Your task to perform on an android device: Go to internet settings Image 0: 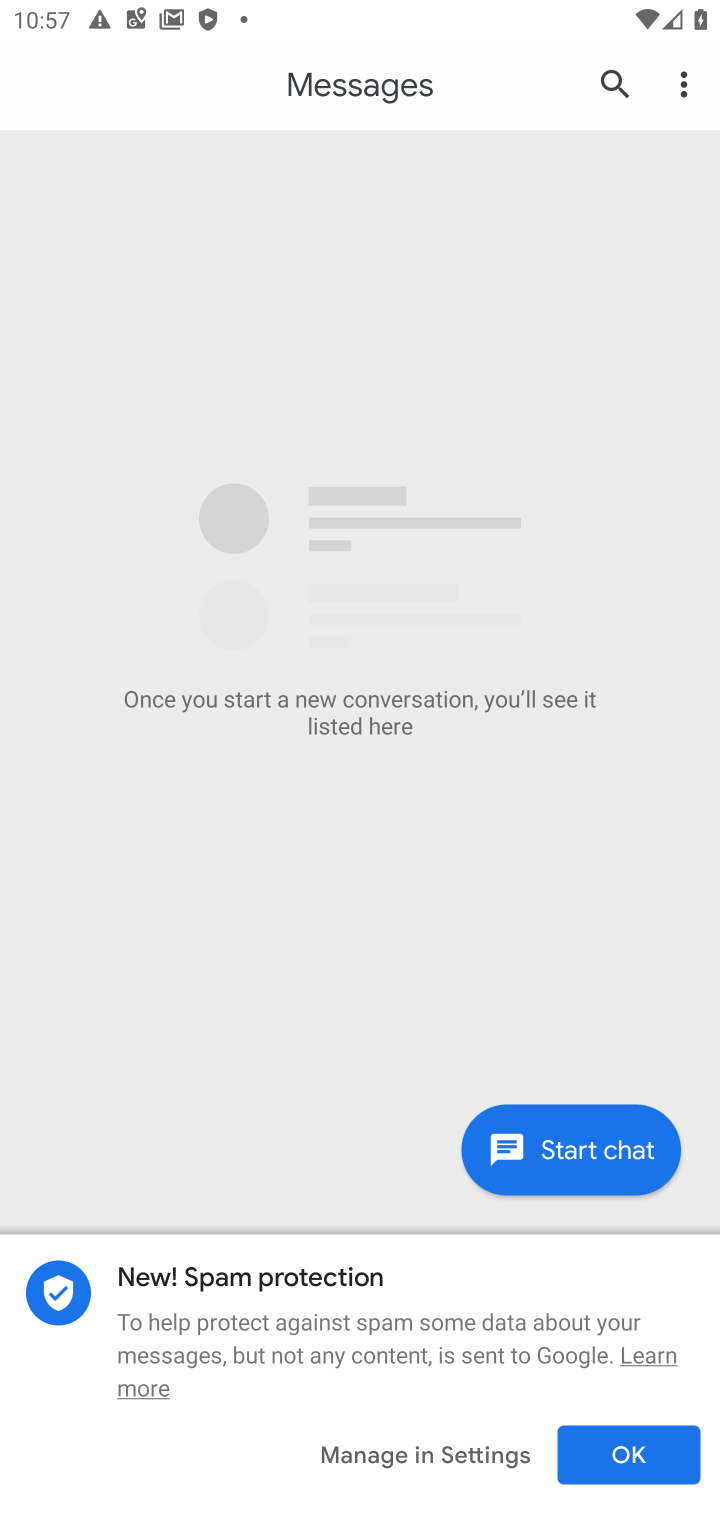
Step 0: press home button
Your task to perform on an android device: Go to internet settings Image 1: 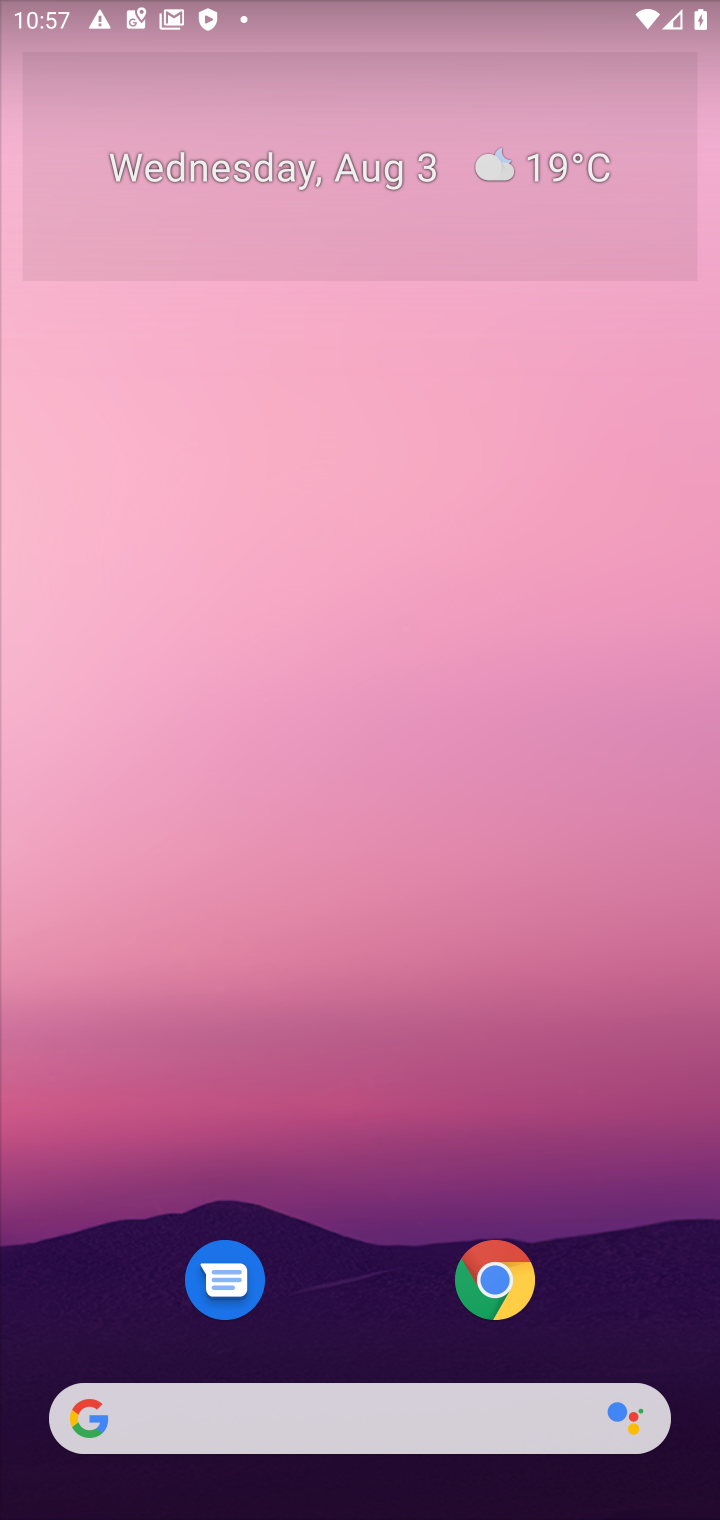
Step 1: drag from (426, 1101) to (628, 0)
Your task to perform on an android device: Go to internet settings Image 2: 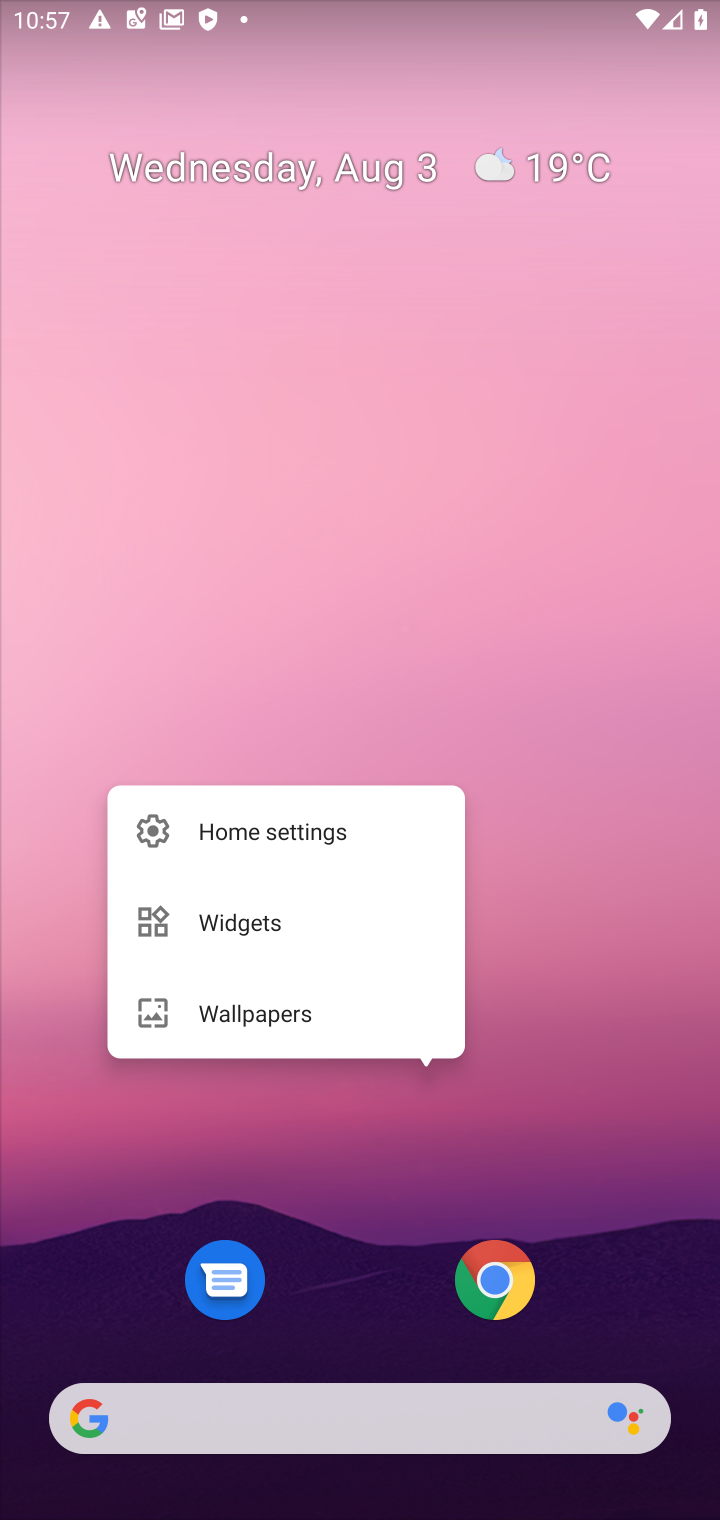
Step 2: click (396, 633)
Your task to perform on an android device: Go to internet settings Image 3: 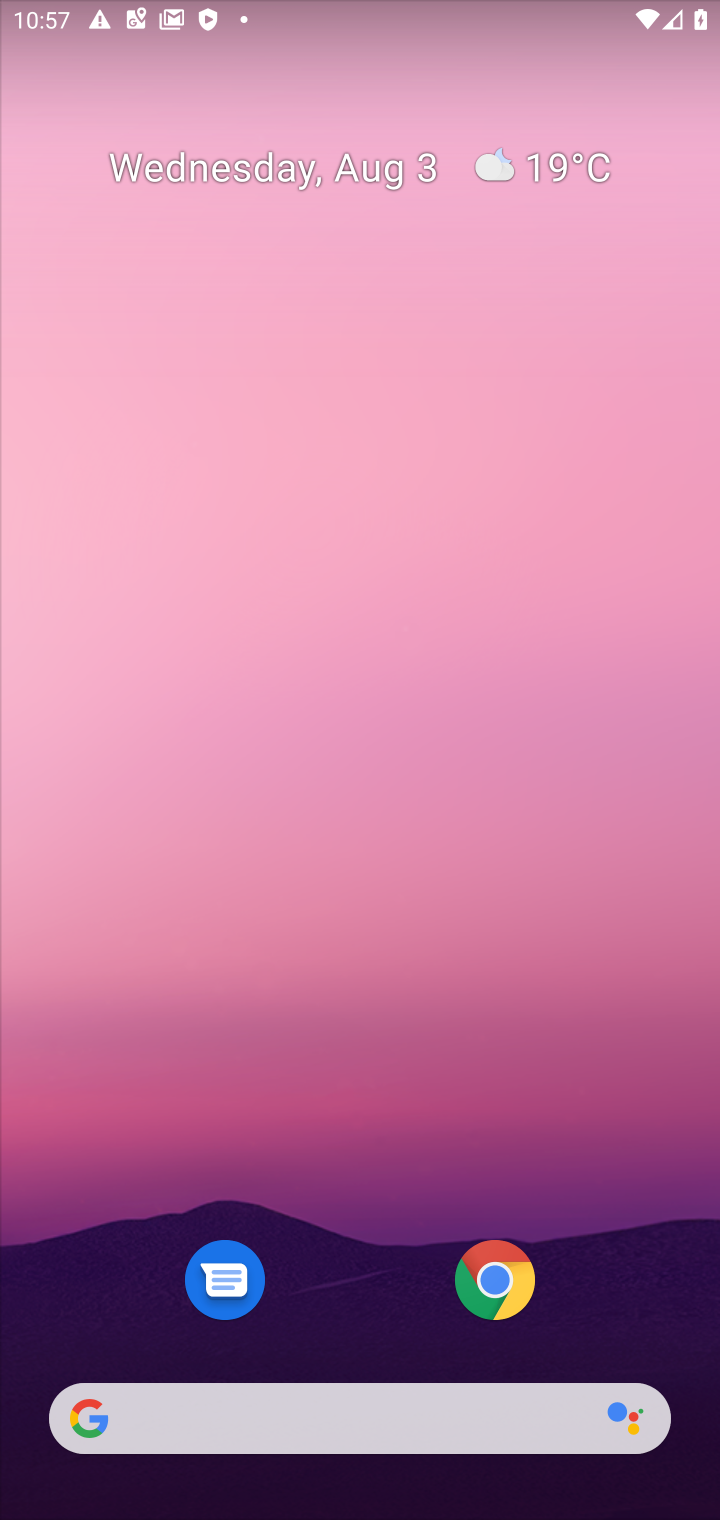
Step 3: drag from (360, 1120) to (260, 504)
Your task to perform on an android device: Go to internet settings Image 4: 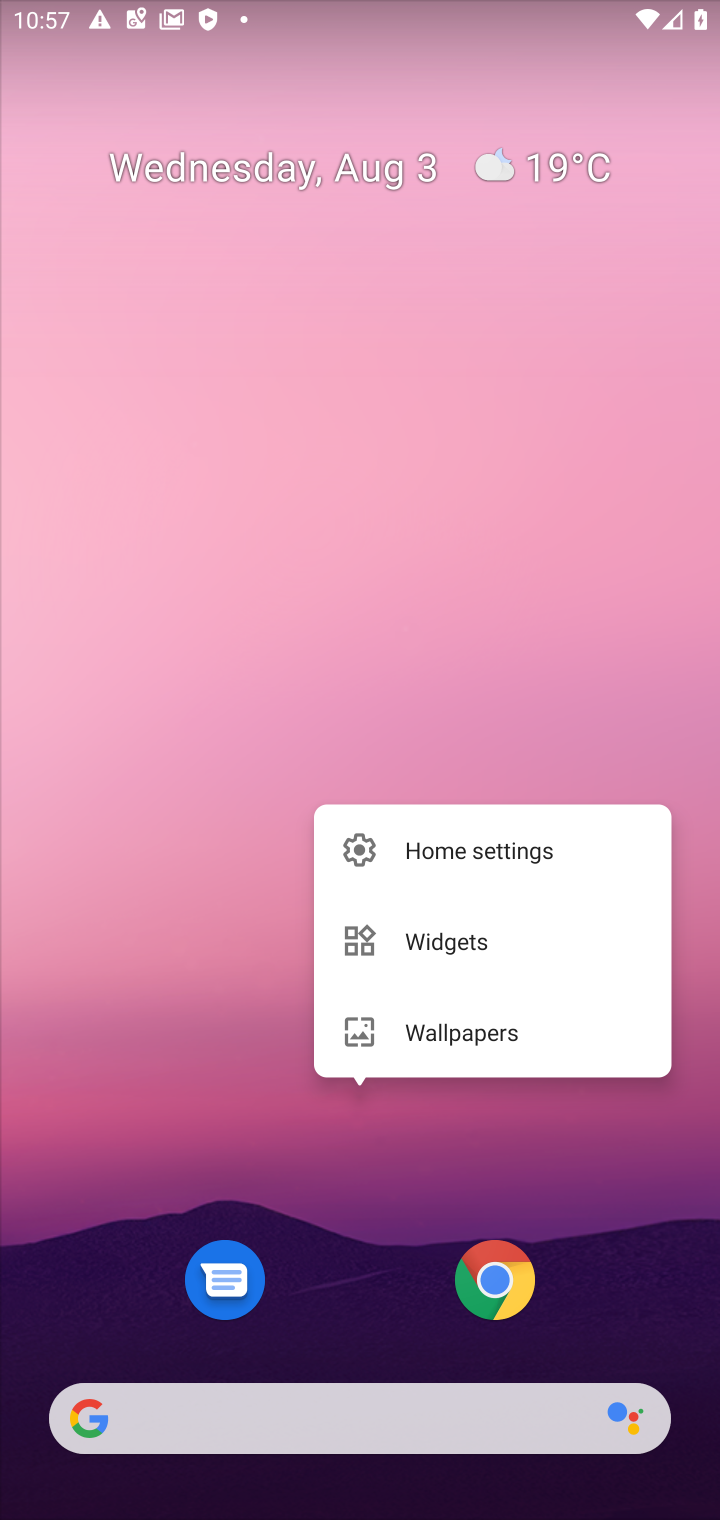
Step 4: click (263, 704)
Your task to perform on an android device: Go to internet settings Image 5: 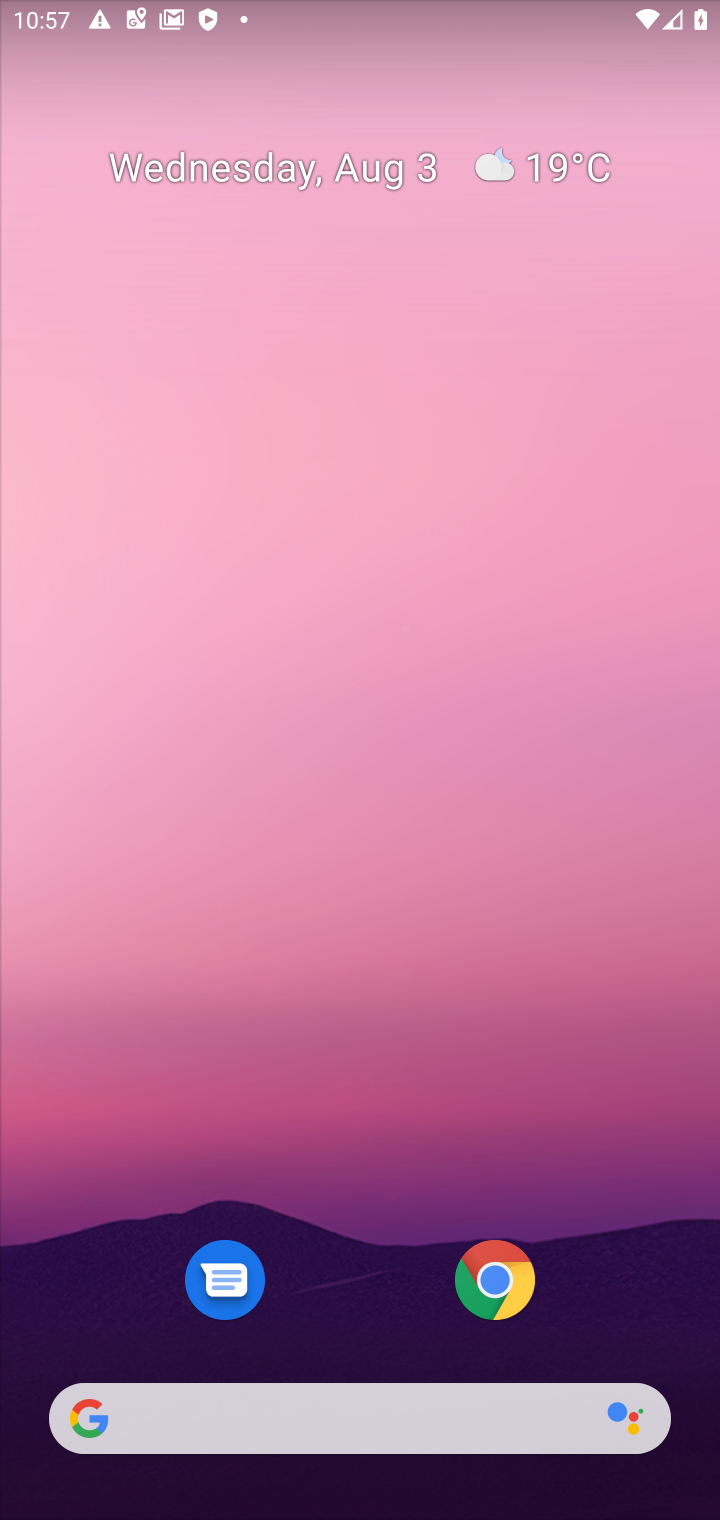
Step 5: drag from (403, 1178) to (372, 463)
Your task to perform on an android device: Go to internet settings Image 6: 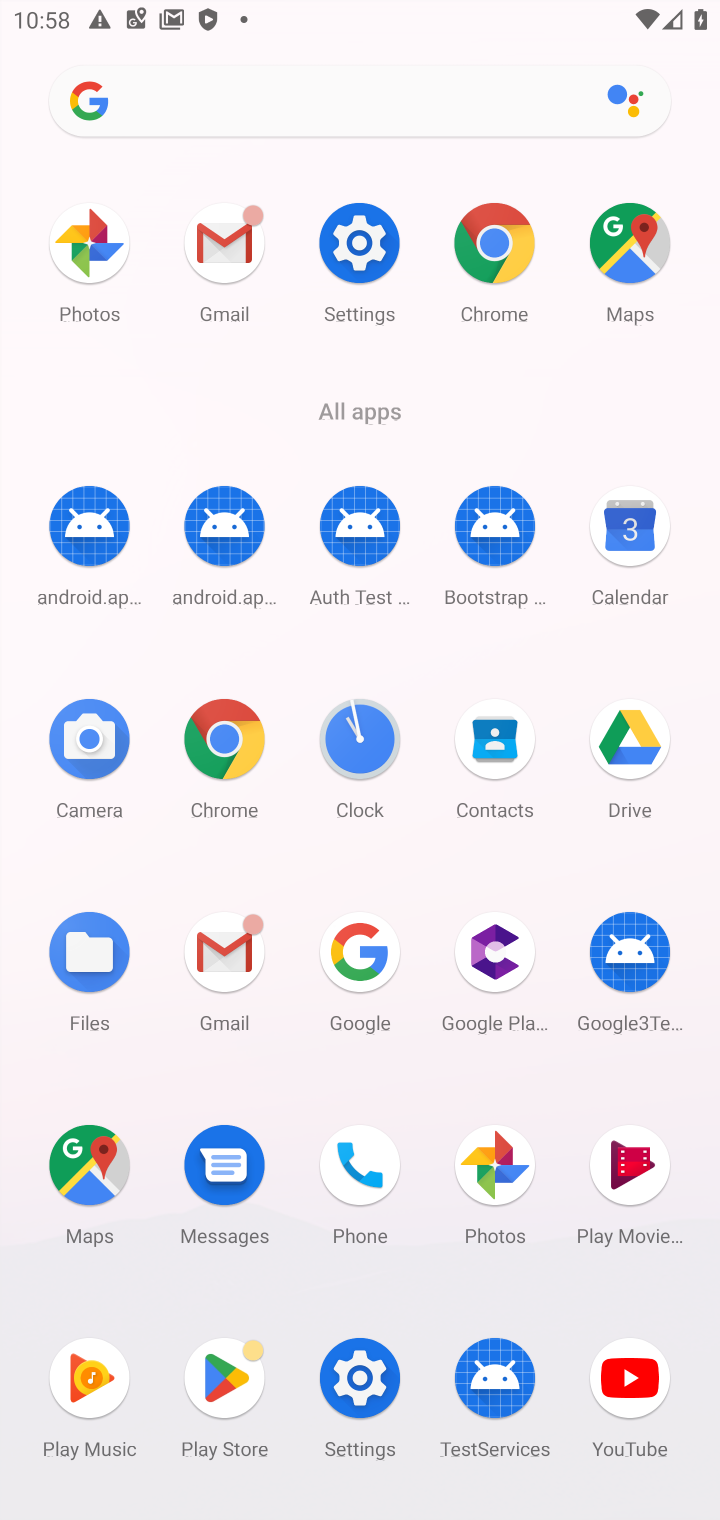
Step 6: click (357, 262)
Your task to perform on an android device: Go to internet settings Image 7: 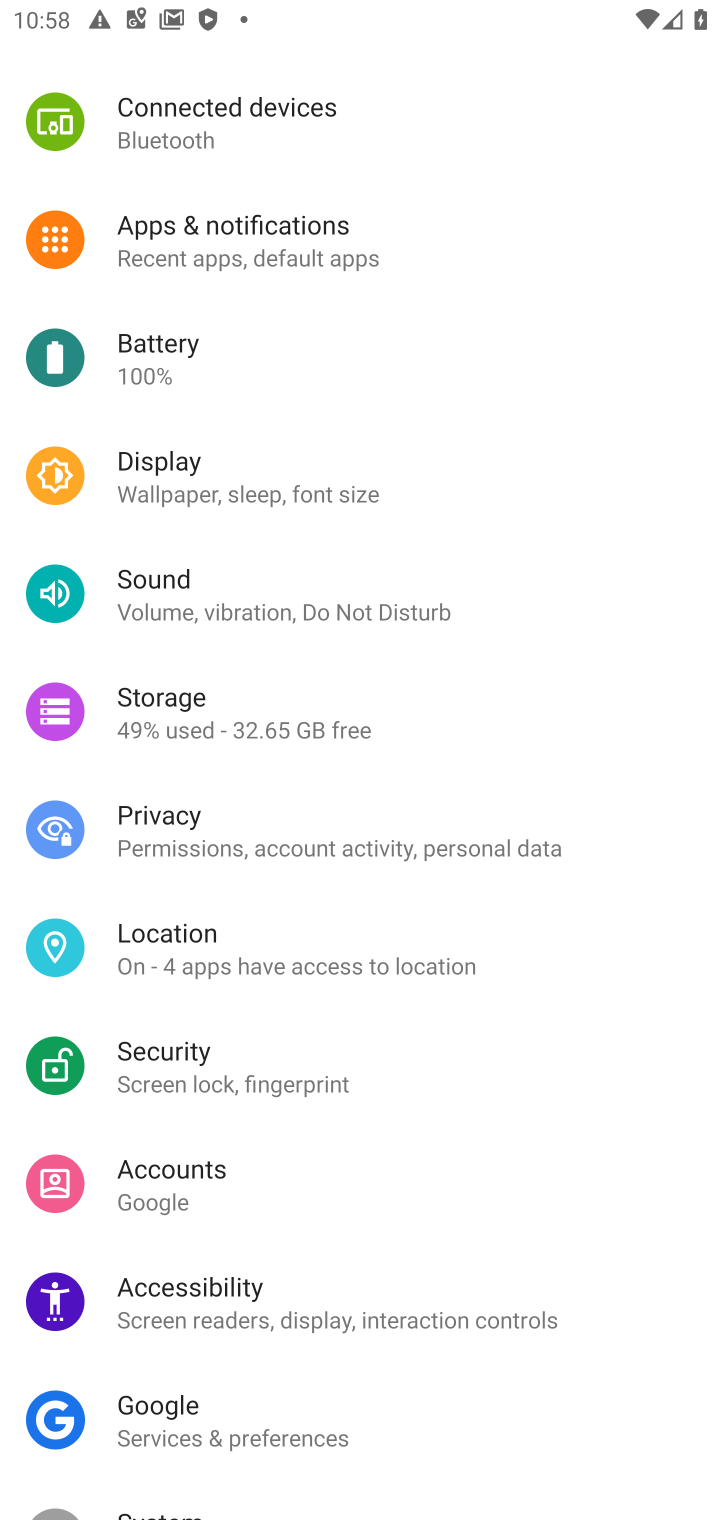
Step 7: task complete